Your task to perform on an android device: install app "VLC for Android" Image 0: 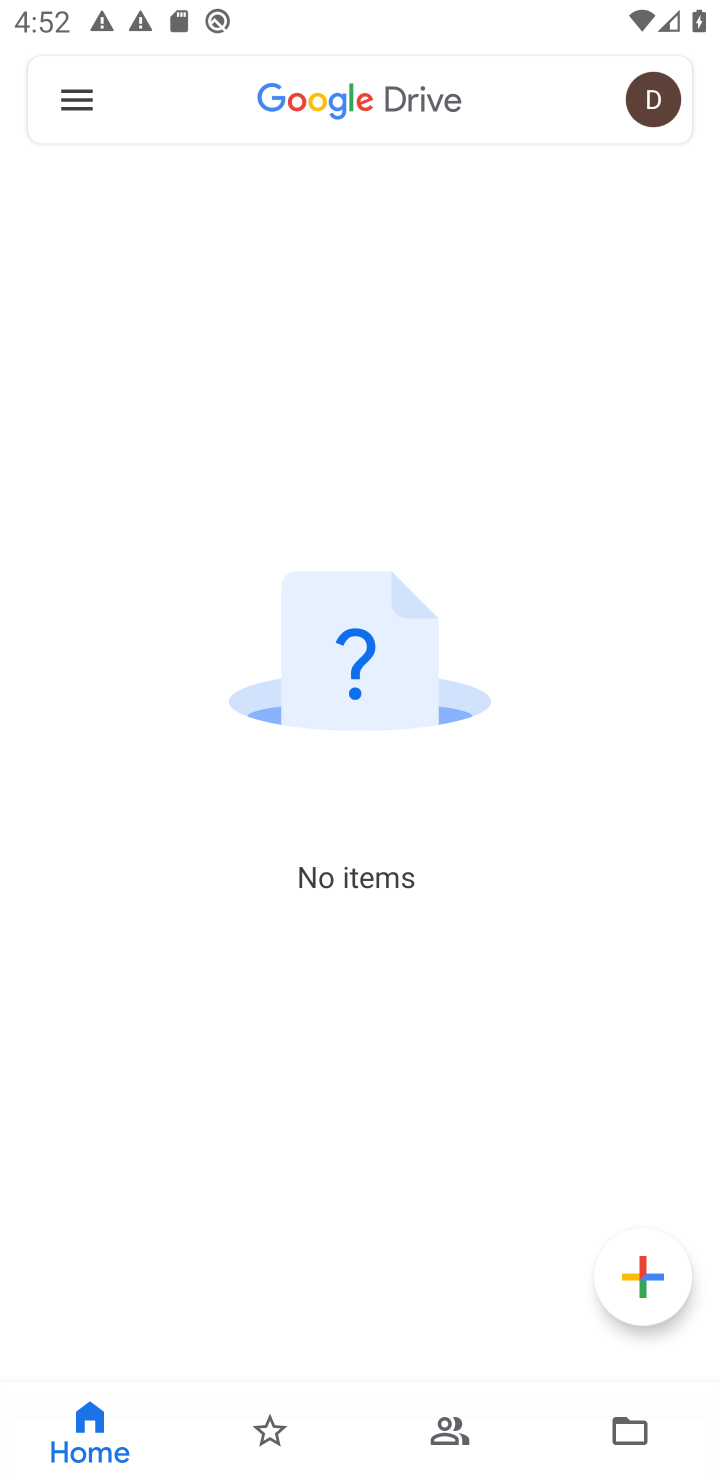
Step 0: press home button
Your task to perform on an android device: install app "VLC for Android" Image 1: 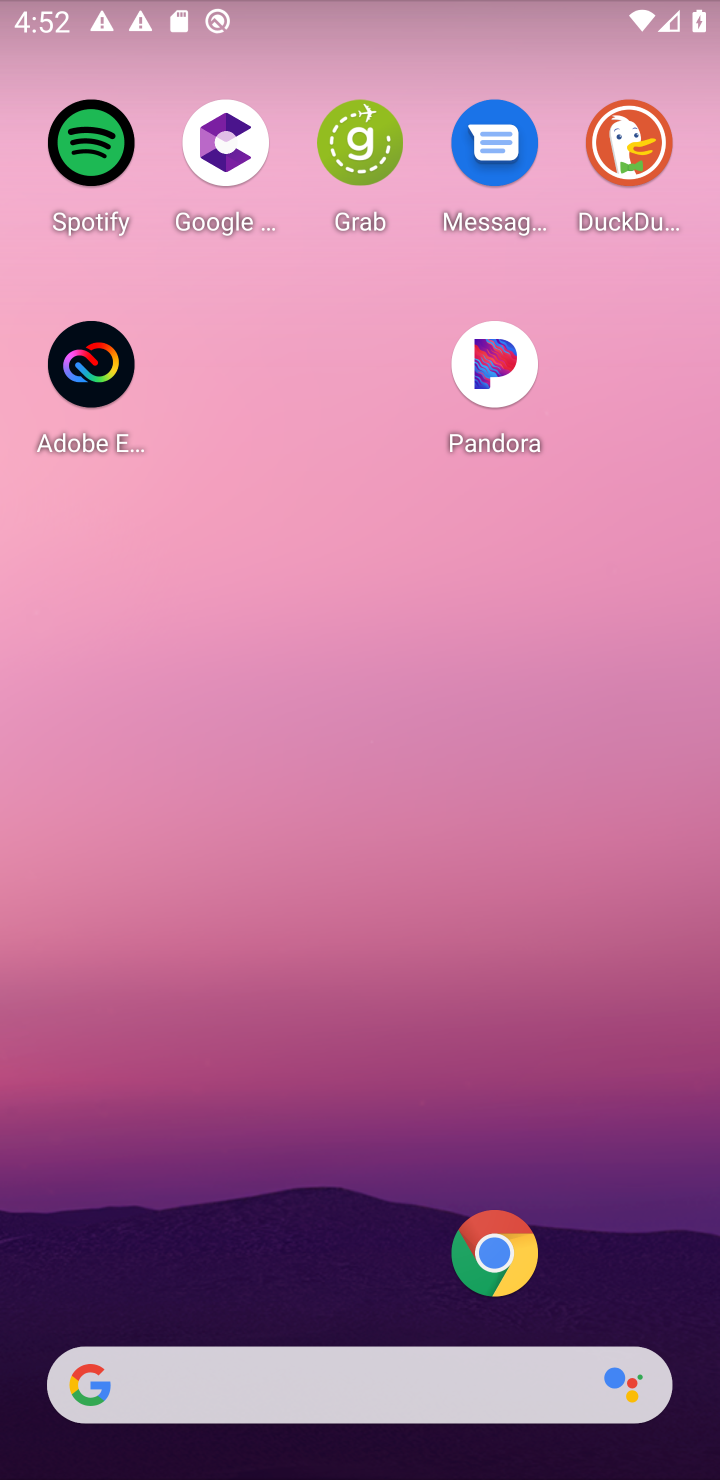
Step 1: drag from (195, 1198) to (377, 139)
Your task to perform on an android device: install app "VLC for Android" Image 2: 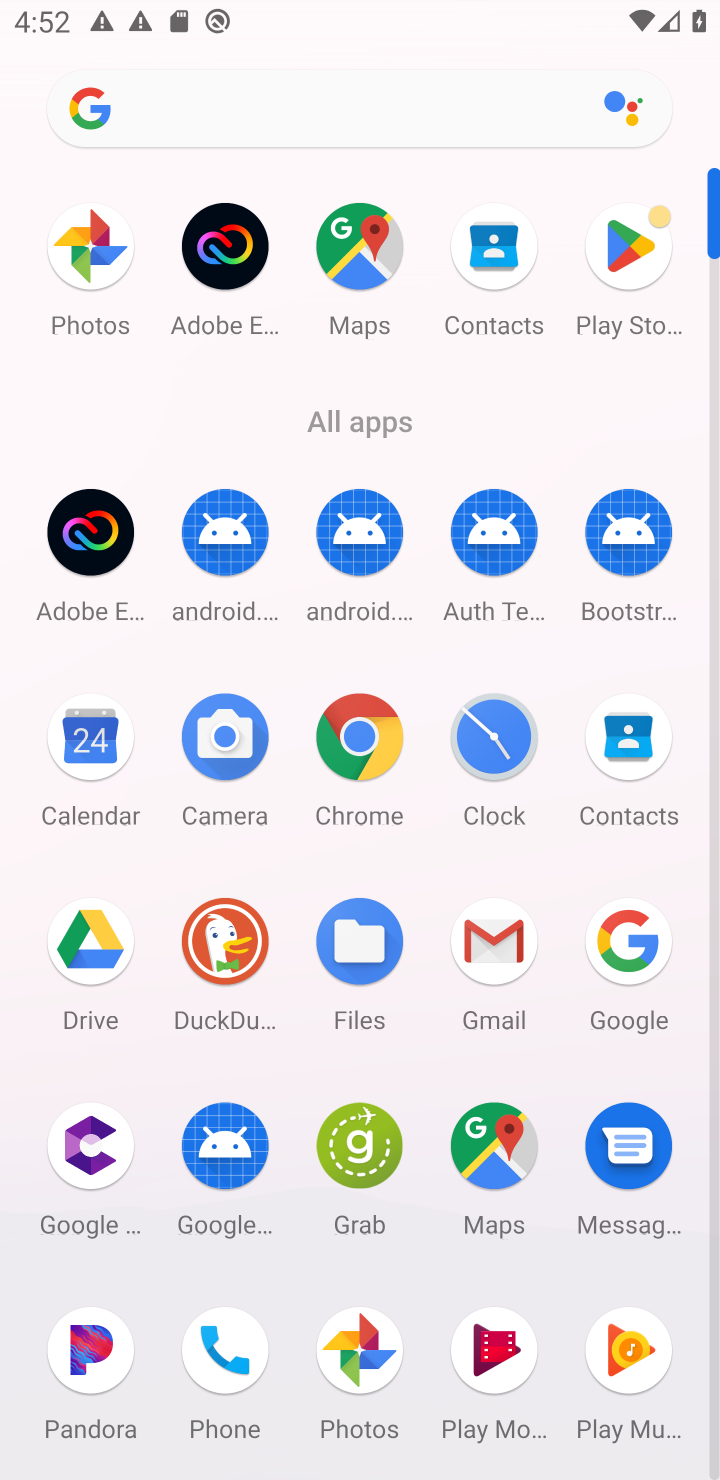
Step 2: click (650, 272)
Your task to perform on an android device: install app "VLC for Android" Image 3: 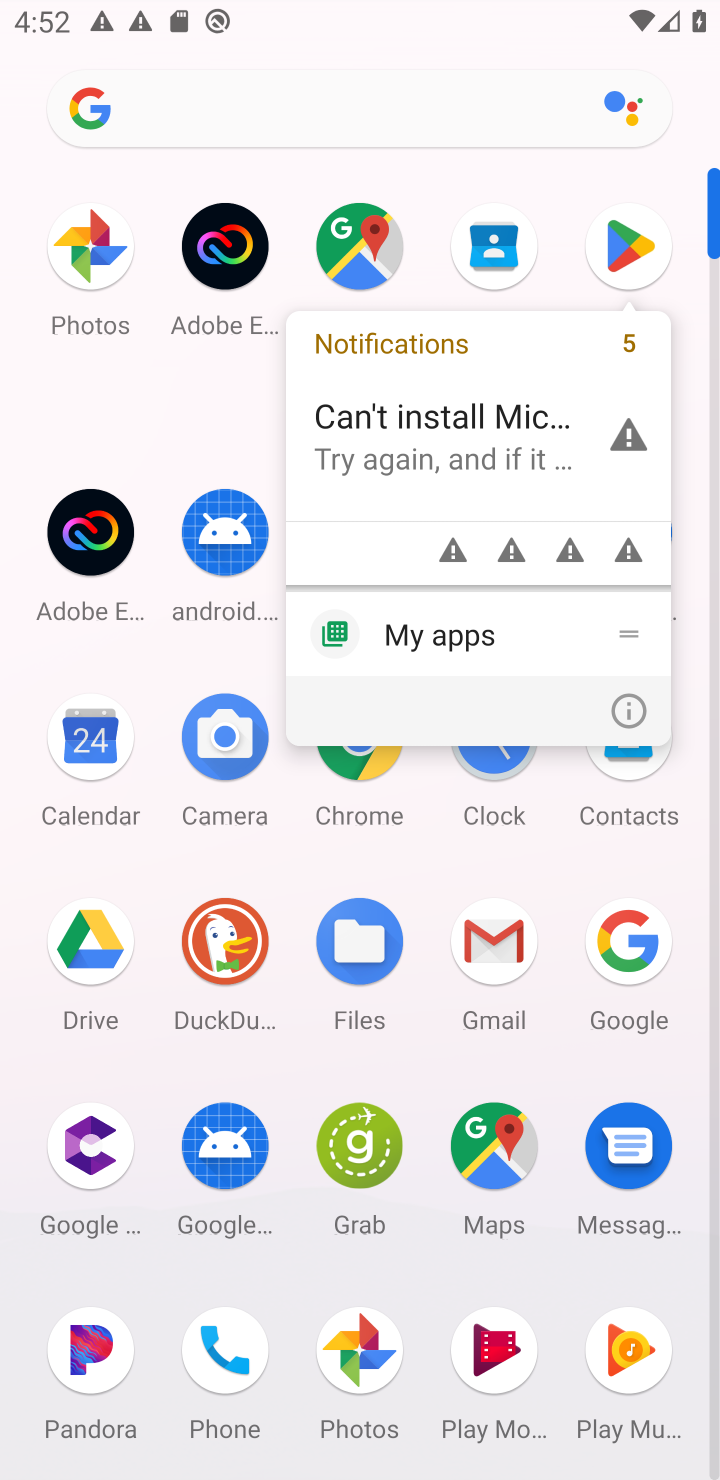
Step 3: click (627, 257)
Your task to perform on an android device: install app "VLC for Android" Image 4: 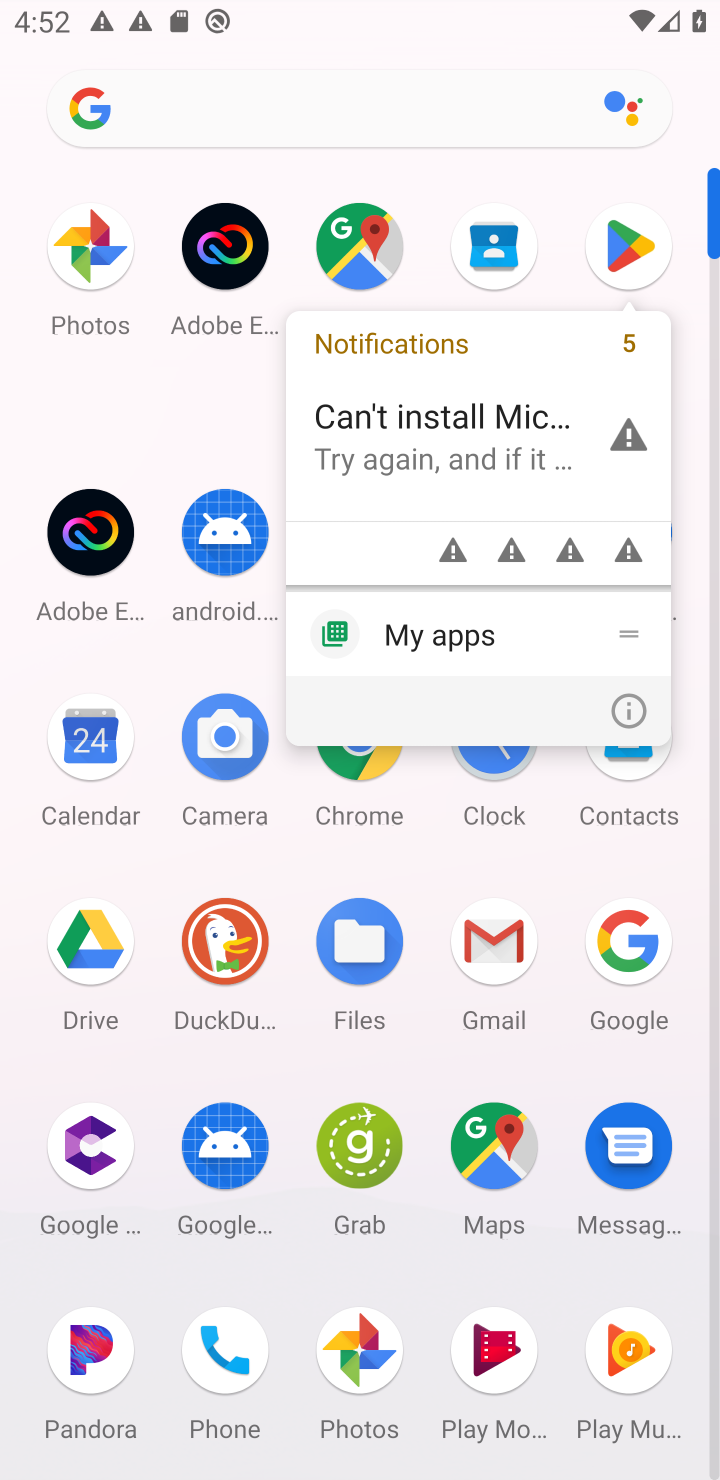
Step 4: click (619, 236)
Your task to perform on an android device: install app "VLC for Android" Image 5: 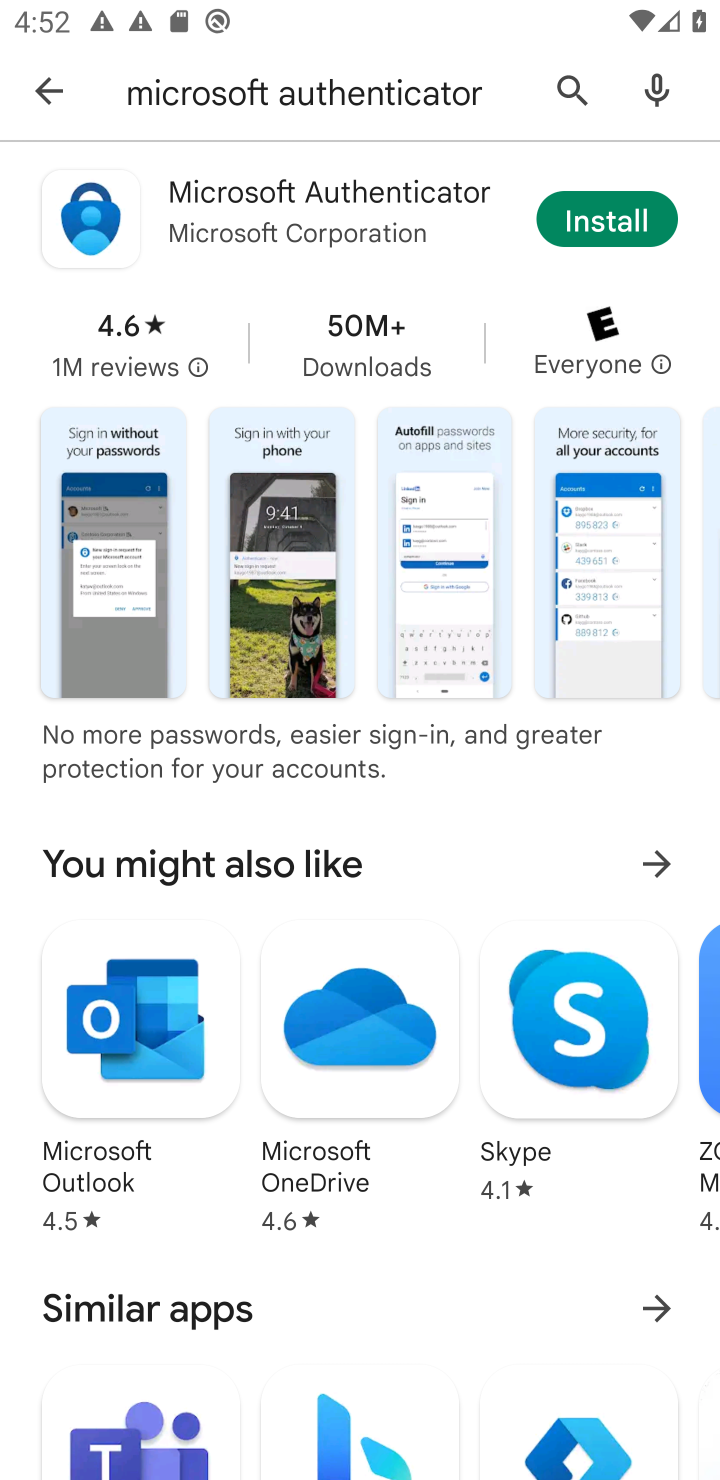
Step 5: click (564, 78)
Your task to perform on an android device: install app "VLC for Android" Image 6: 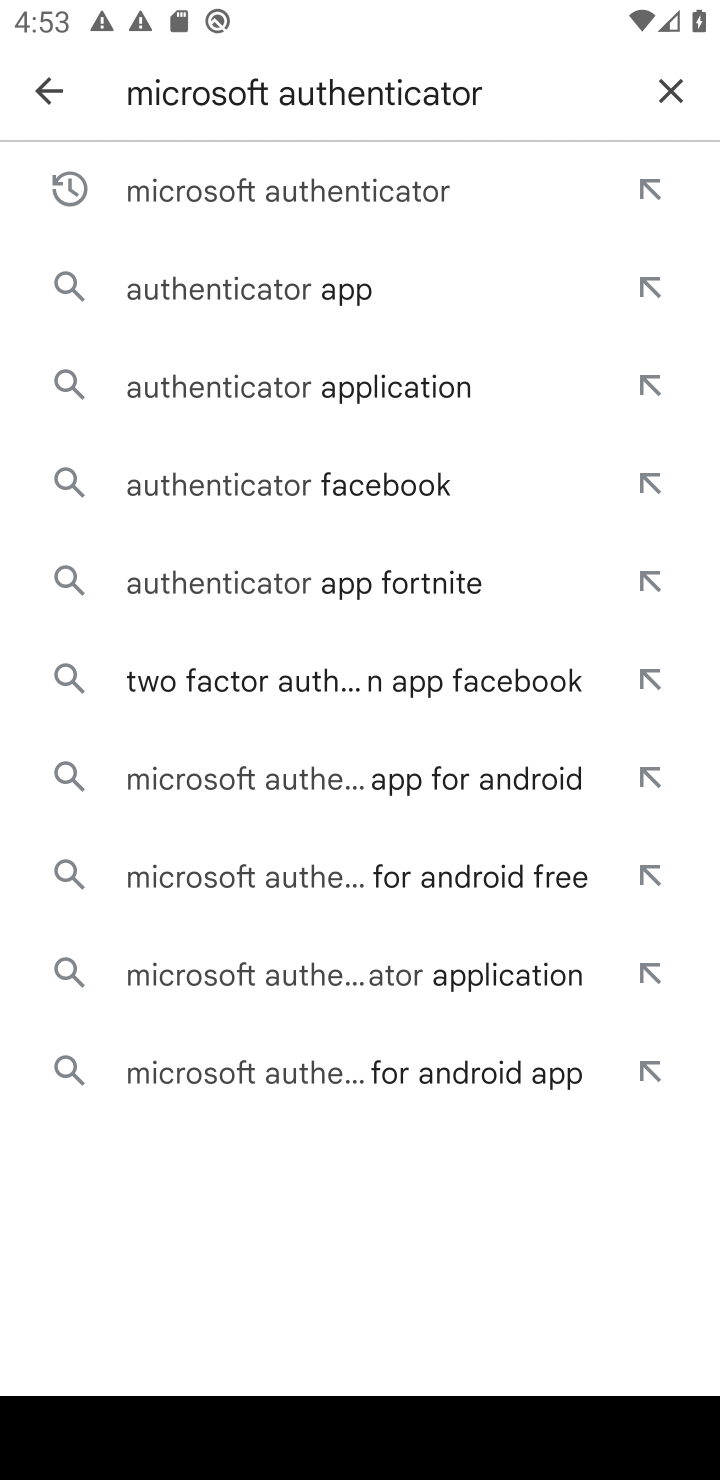
Step 6: click (659, 86)
Your task to perform on an android device: install app "VLC for Android" Image 7: 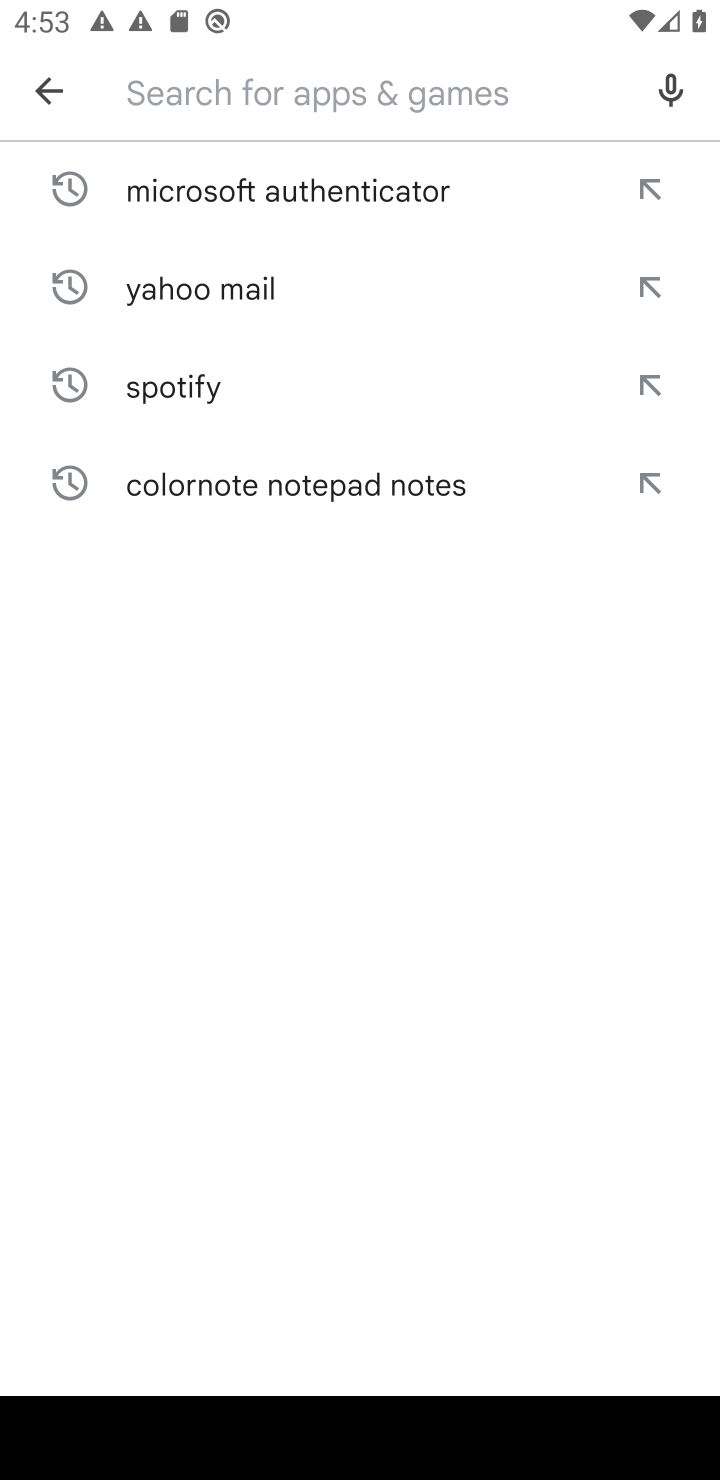
Step 7: click (381, 96)
Your task to perform on an android device: install app "VLC for Android" Image 8: 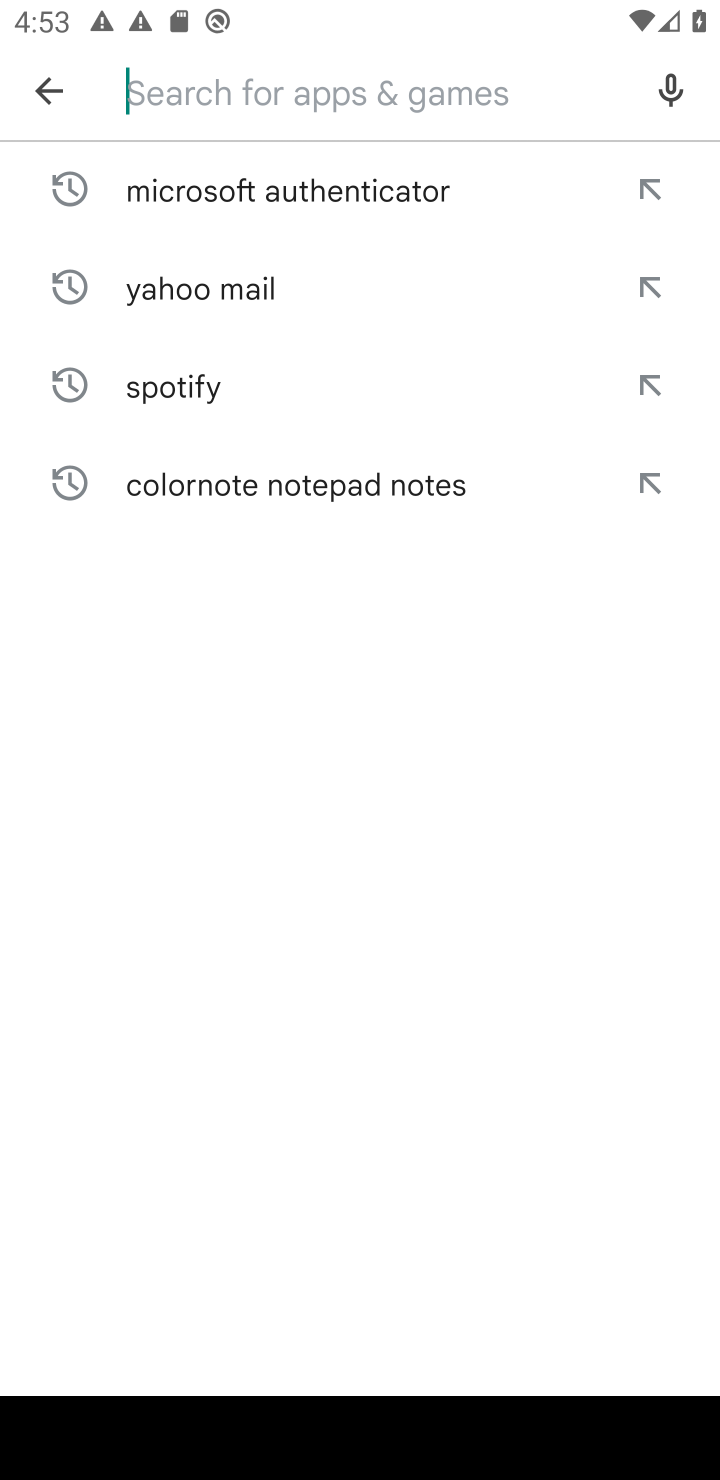
Step 8: type "VLC for Android"
Your task to perform on an android device: install app "VLC for Android" Image 9: 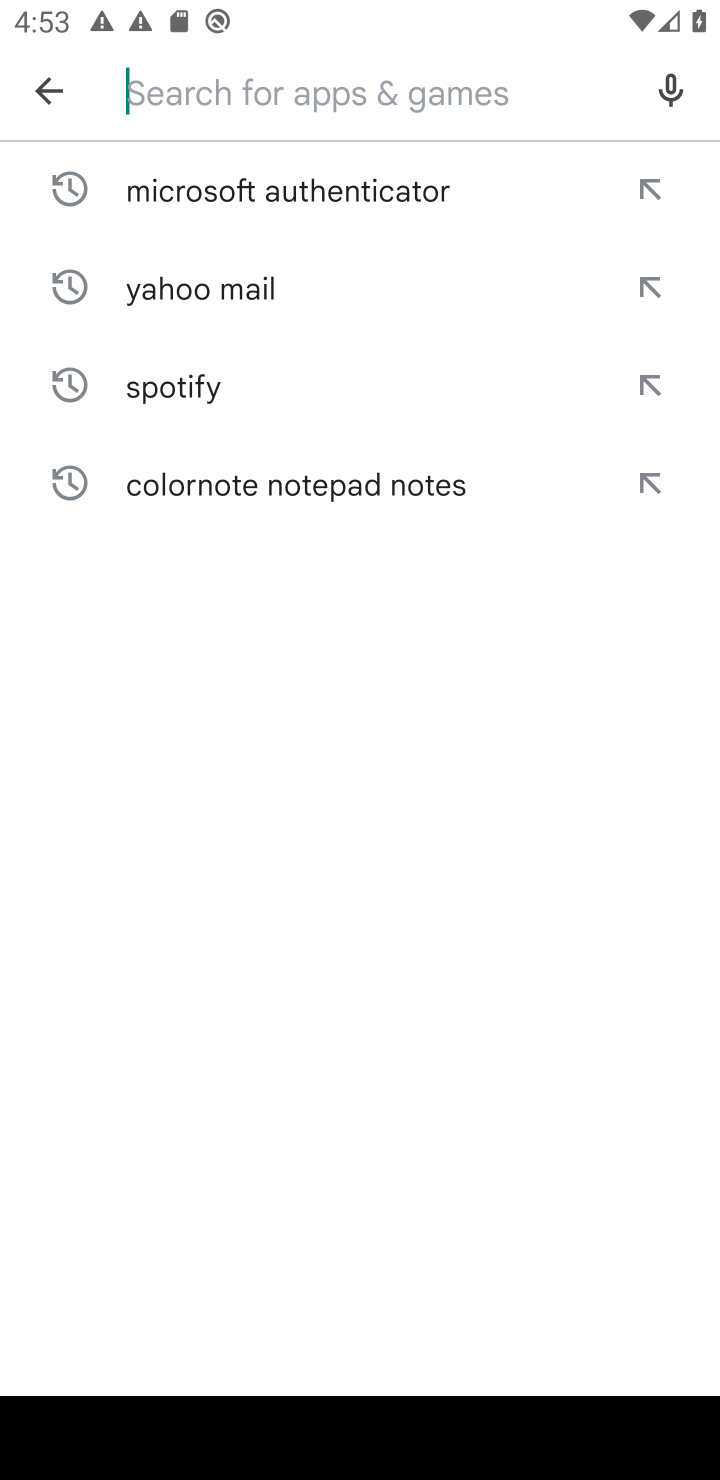
Step 9: click (82, 1115)
Your task to perform on an android device: install app "VLC for Android" Image 10: 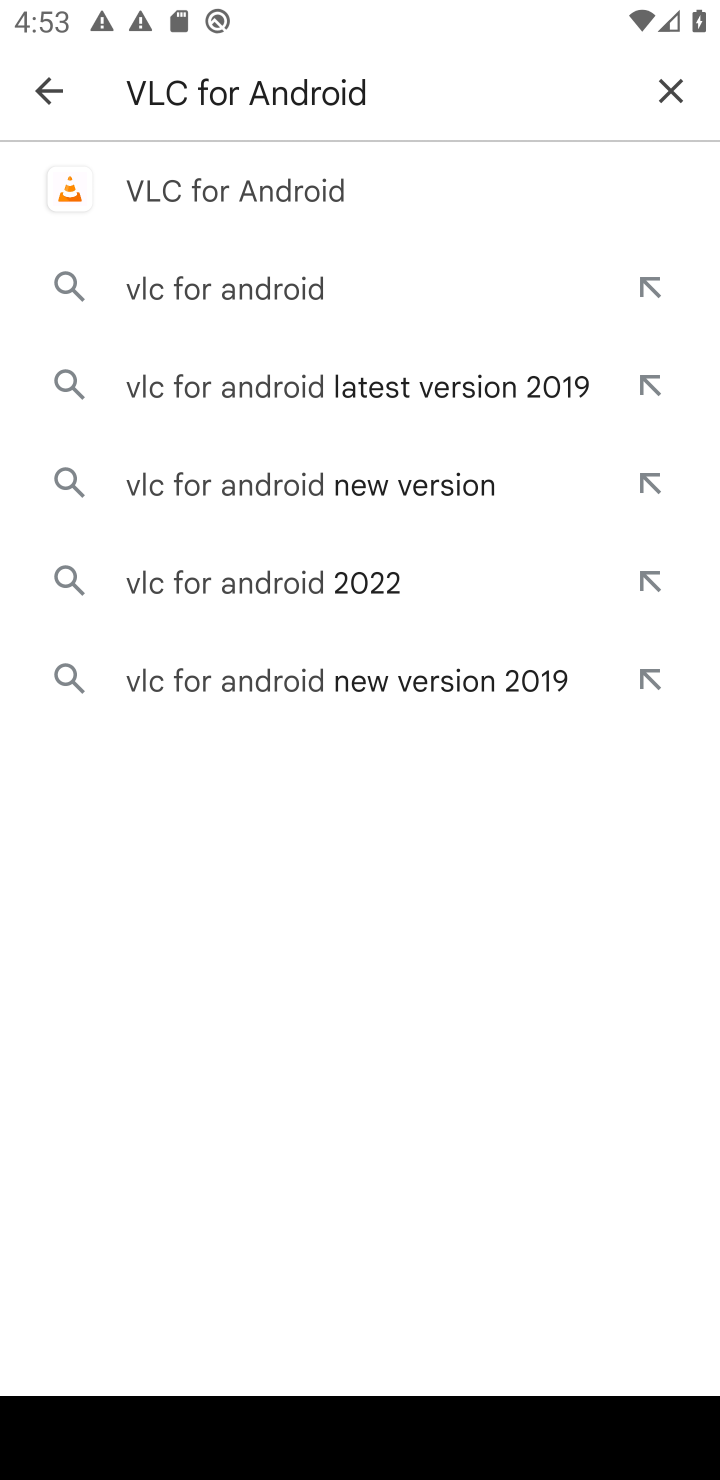
Step 10: click (201, 188)
Your task to perform on an android device: install app "VLC for Android" Image 11: 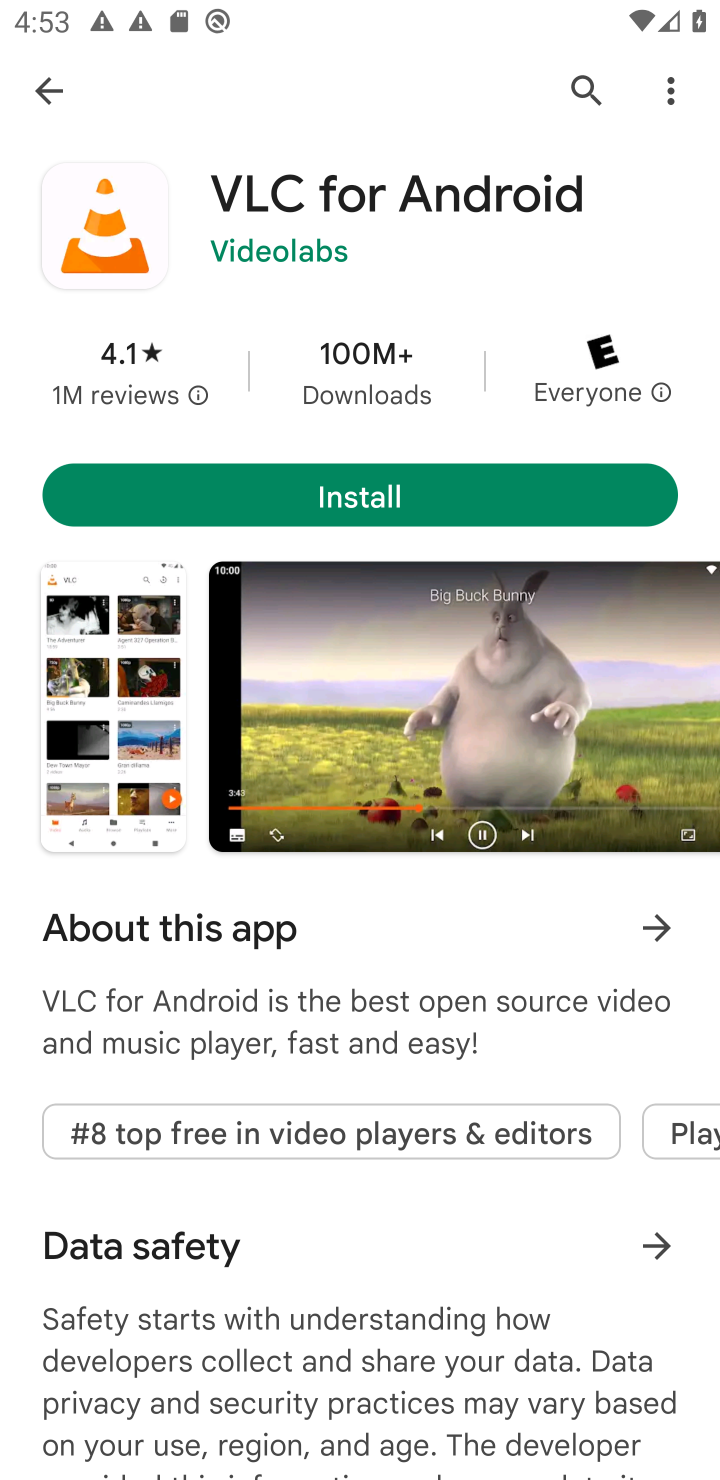
Step 11: click (402, 494)
Your task to perform on an android device: install app "VLC for Android" Image 12: 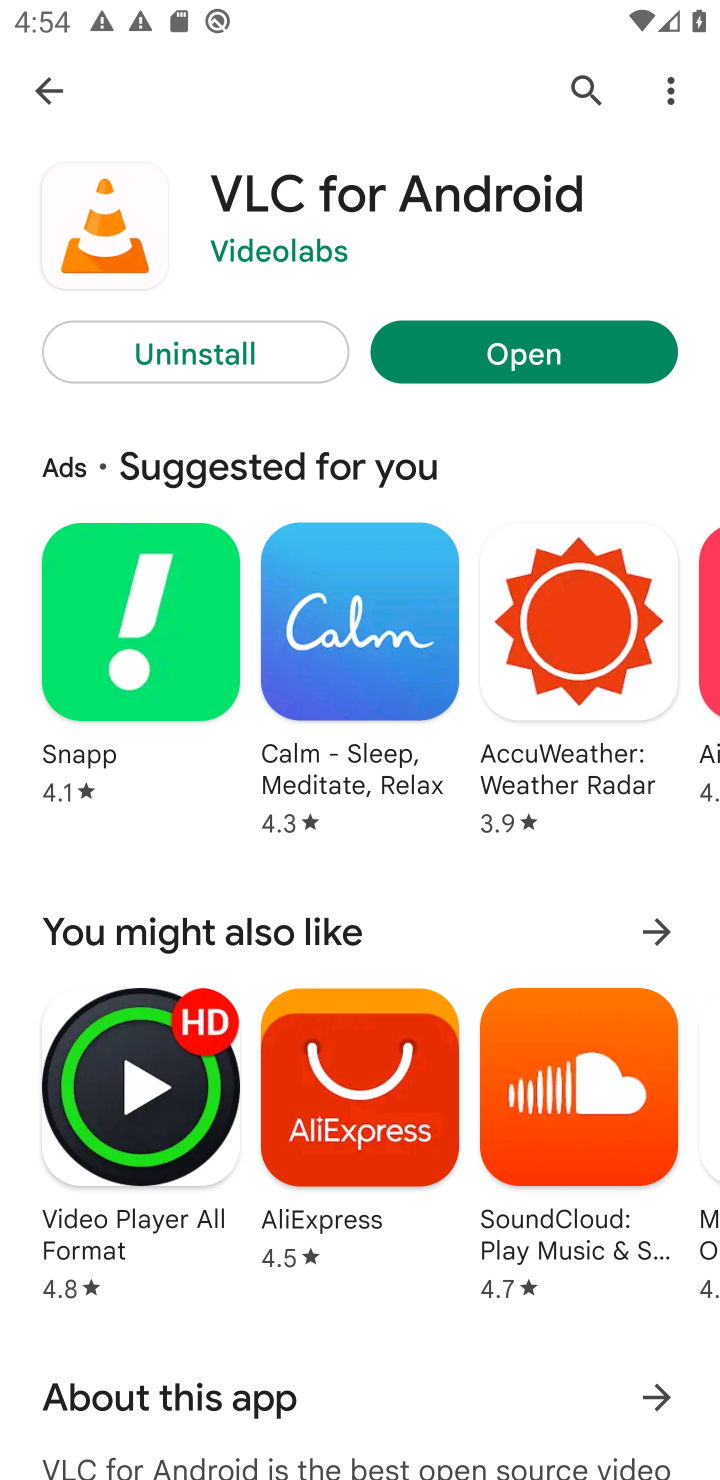
Step 12: task complete